Your task to perform on an android device: Go to Yahoo.com Image 0: 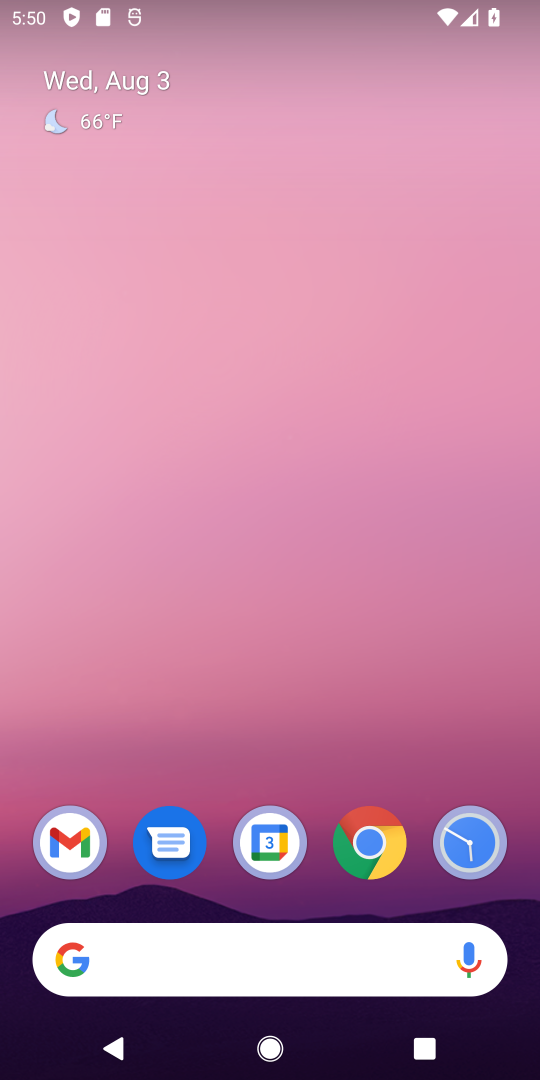
Step 0: click (190, 956)
Your task to perform on an android device: Go to Yahoo.com Image 1: 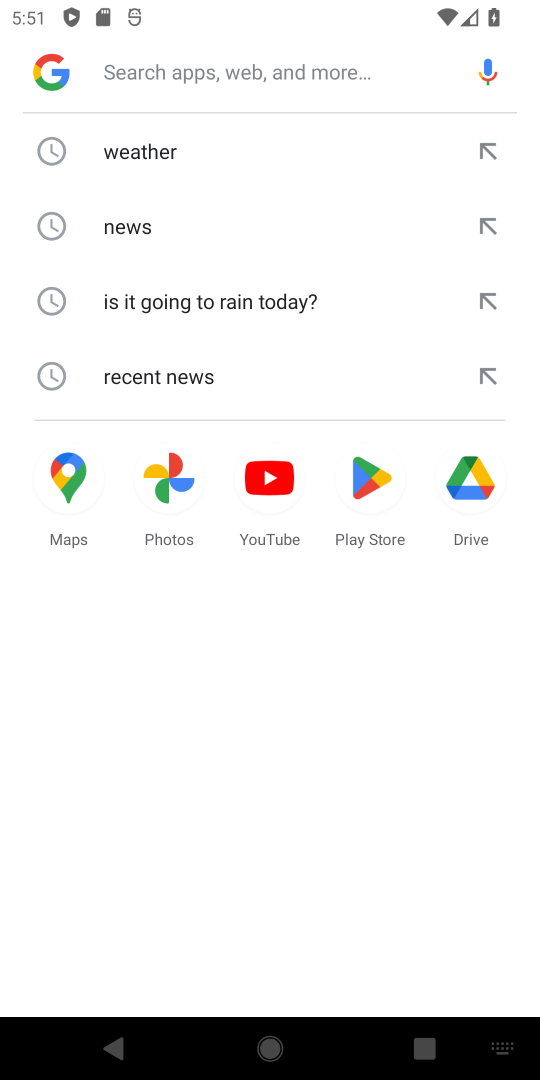
Step 1: type "yahoo.com"
Your task to perform on an android device: Go to Yahoo.com Image 2: 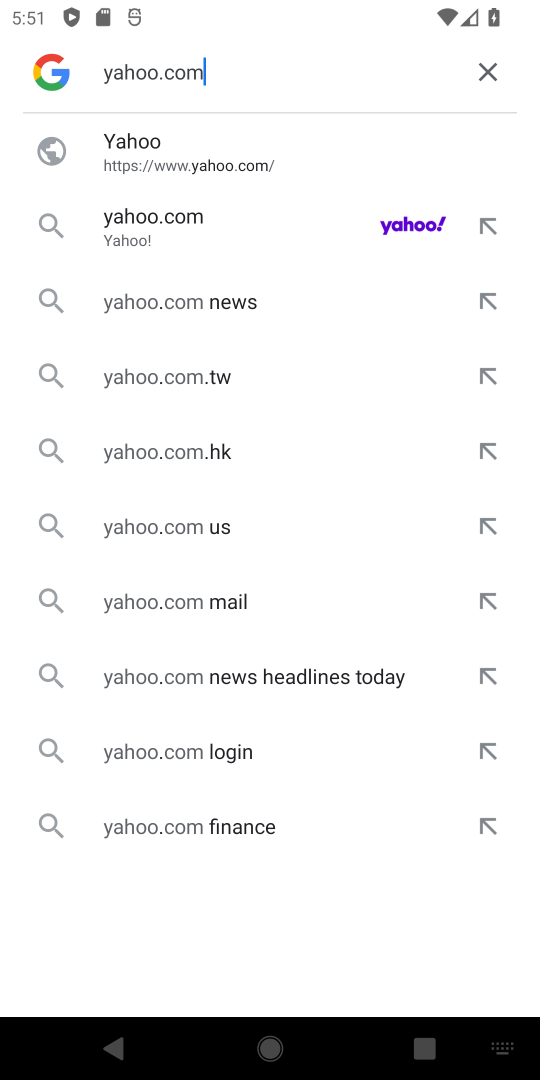
Step 2: click (240, 164)
Your task to perform on an android device: Go to Yahoo.com Image 3: 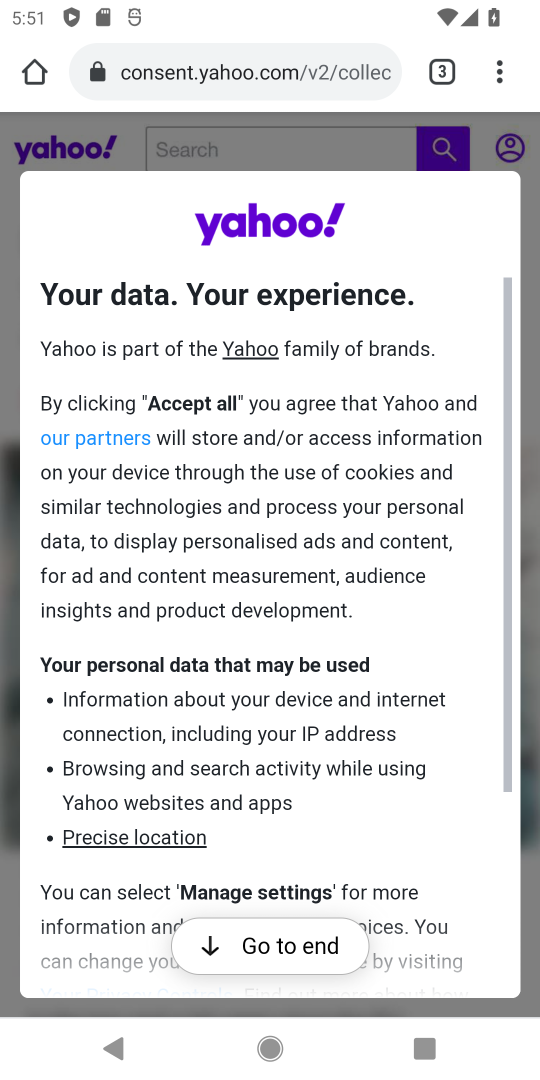
Step 3: task complete